Your task to perform on an android device: Turn on the flashlight Image 0: 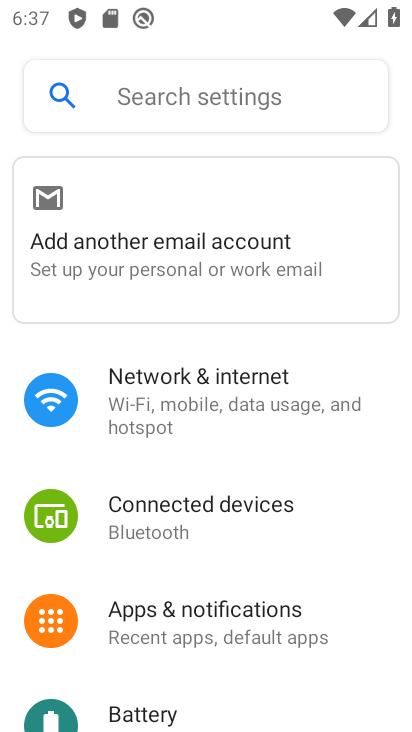
Step 0: press home button
Your task to perform on an android device: Turn on the flashlight Image 1: 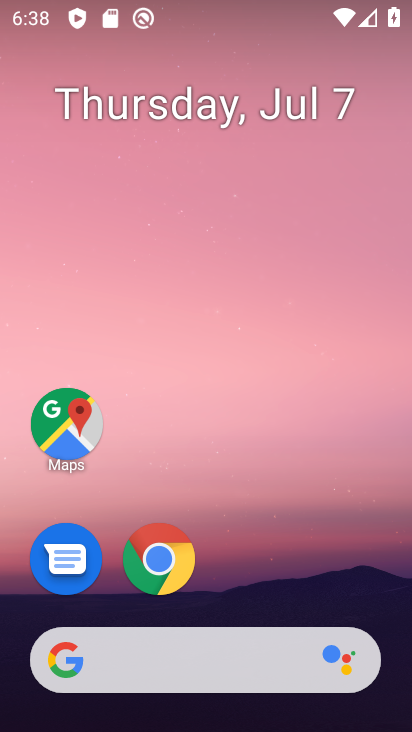
Step 1: drag from (236, 570) to (307, 170)
Your task to perform on an android device: Turn on the flashlight Image 2: 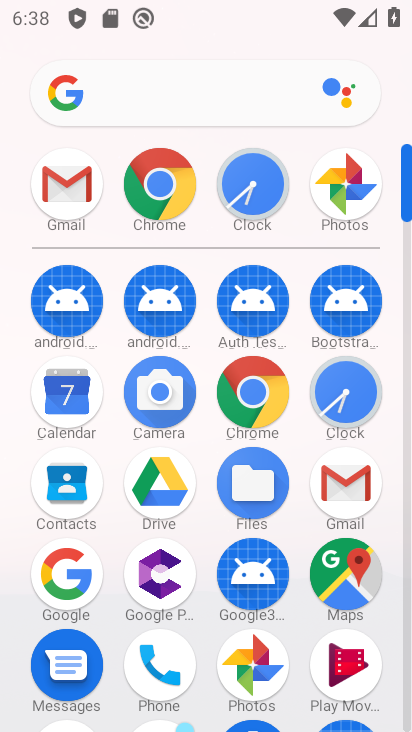
Step 2: drag from (213, 568) to (251, 293)
Your task to perform on an android device: Turn on the flashlight Image 3: 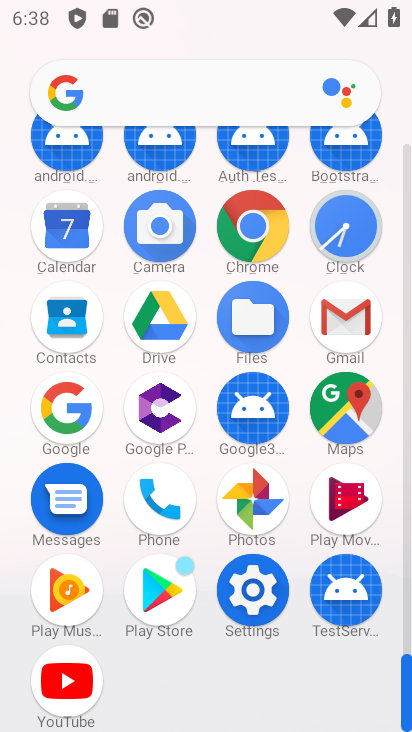
Step 3: drag from (227, 496) to (262, 320)
Your task to perform on an android device: Turn on the flashlight Image 4: 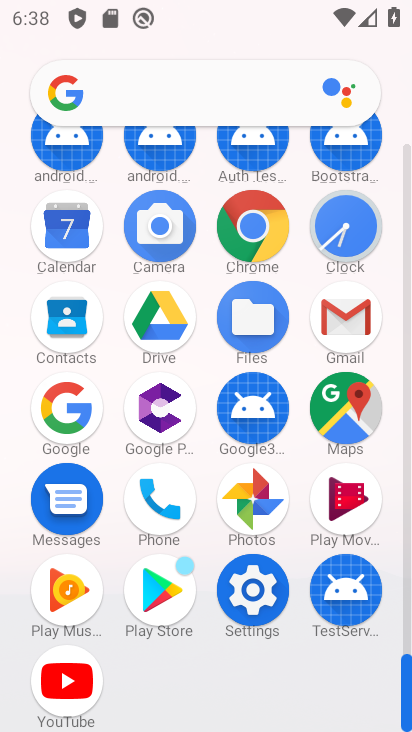
Step 4: drag from (346, 14) to (344, 231)
Your task to perform on an android device: Turn on the flashlight Image 5: 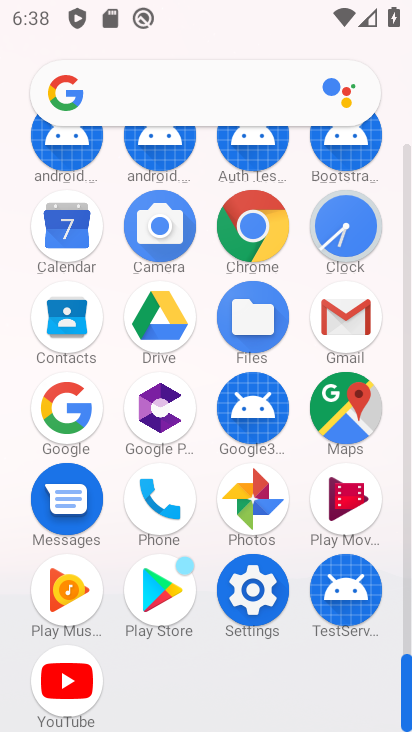
Step 5: drag from (321, 29) to (299, 356)
Your task to perform on an android device: Turn on the flashlight Image 6: 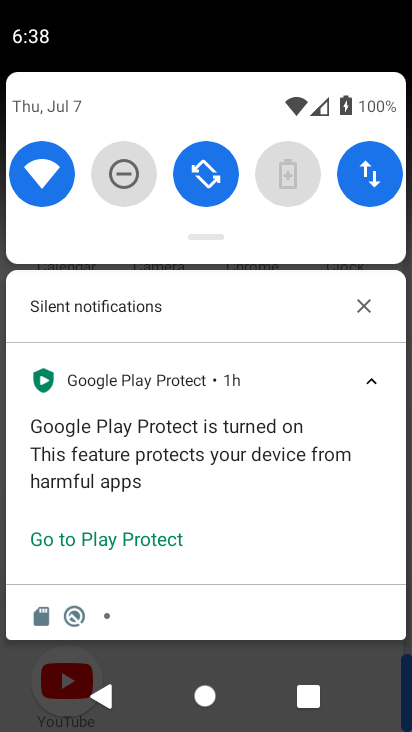
Step 6: drag from (251, 190) to (245, 377)
Your task to perform on an android device: Turn on the flashlight Image 7: 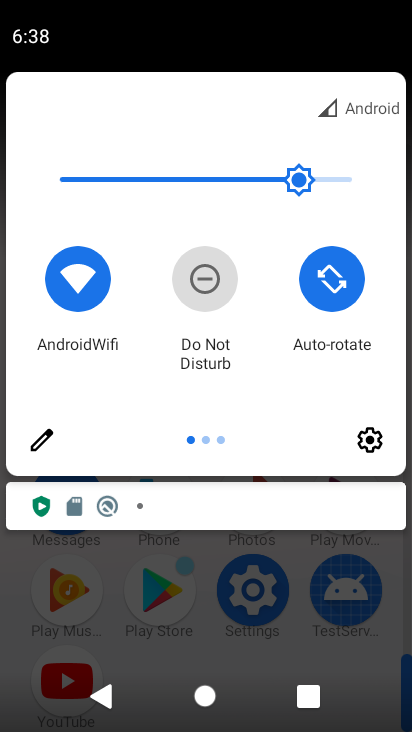
Step 7: drag from (325, 330) to (17, 350)
Your task to perform on an android device: Turn on the flashlight Image 8: 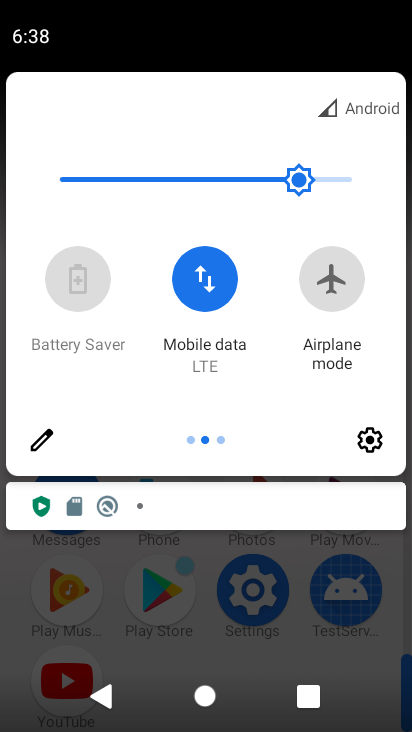
Step 8: drag from (285, 345) to (115, 369)
Your task to perform on an android device: Turn on the flashlight Image 9: 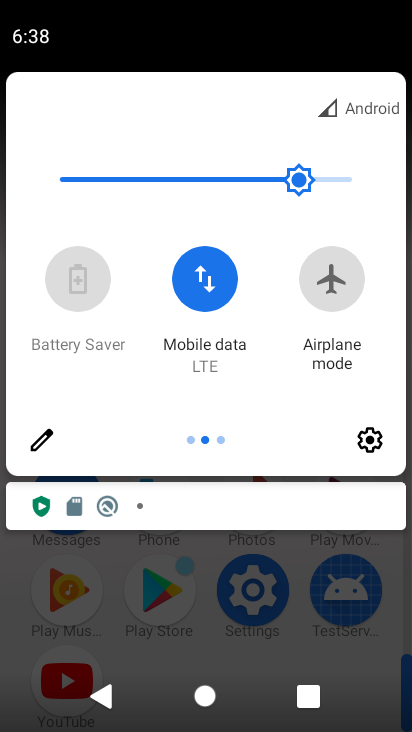
Step 9: click (115, 369)
Your task to perform on an android device: Turn on the flashlight Image 10: 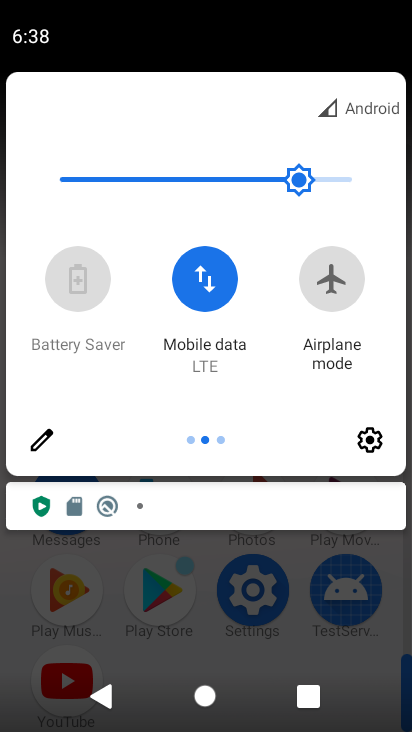
Step 10: click (115, 369)
Your task to perform on an android device: Turn on the flashlight Image 11: 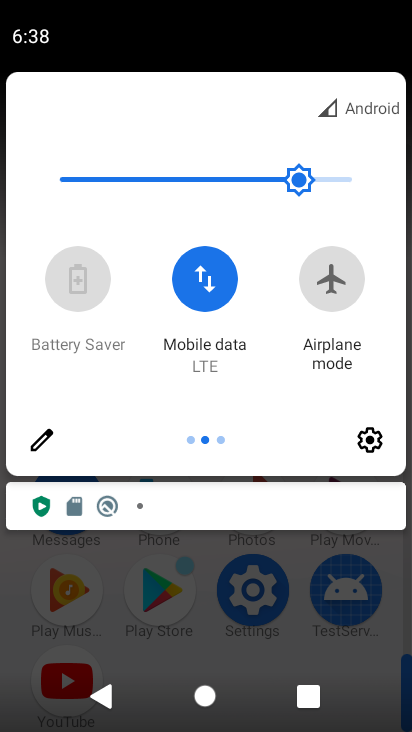
Step 11: task complete